Your task to perform on an android device: toggle sleep mode Image 0: 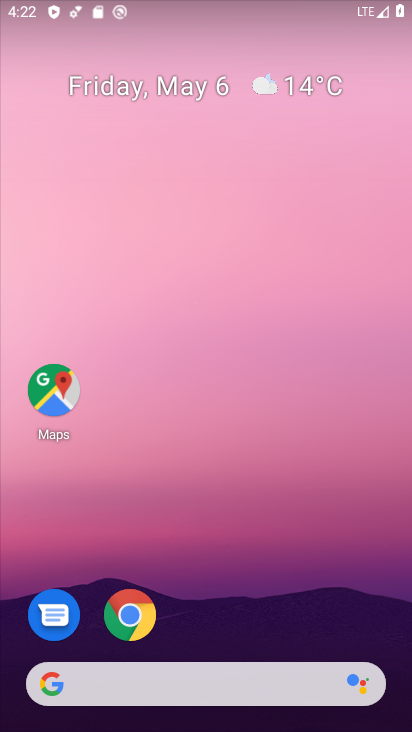
Step 0: drag from (328, 617) to (315, 235)
Your task to perform on an android device: toggle sleep mode Image 1: 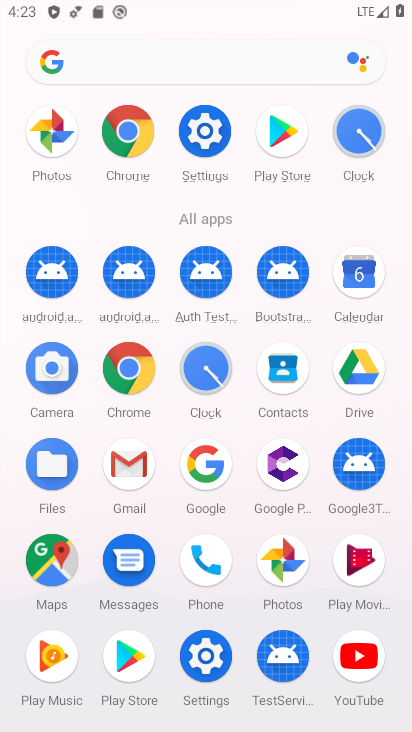
Step 1: click (202, 139)
Your task to perform on an android device: toggle sleep mode Image 2: 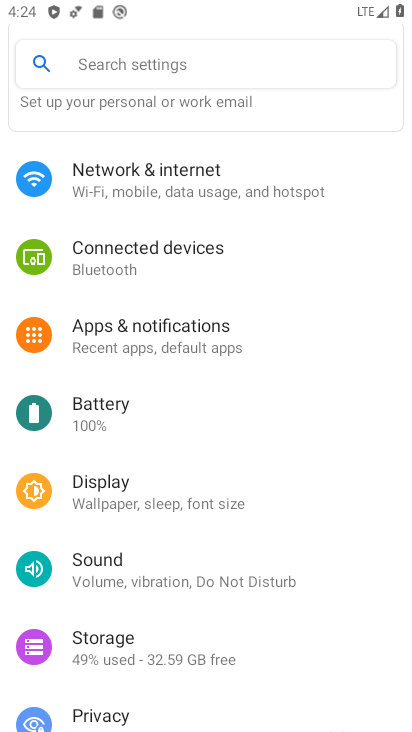
Step 2: click (233, 518)
Your task to perform on an android device: toggle sleep mode Image 3: 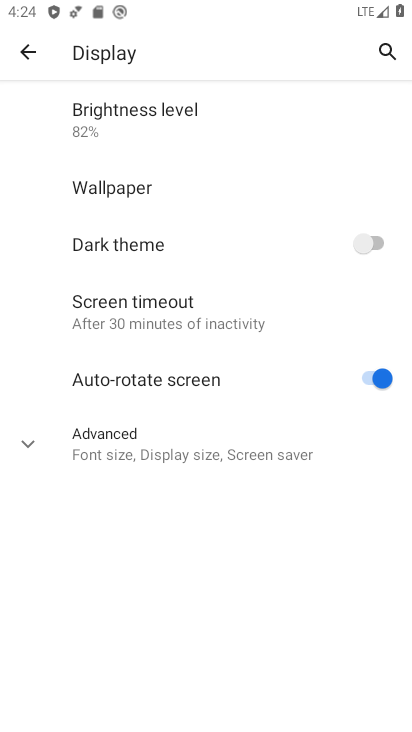
Step 3: click (204, 331)
Your task to perform on an android device: toggle sleep mode Image 4: 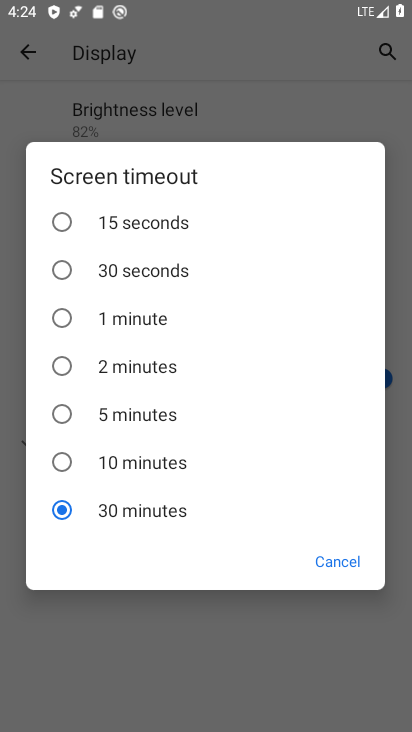
Step 4: click (202, 249)
Your task to perform on an android device: toggle sleep mode Image 5: 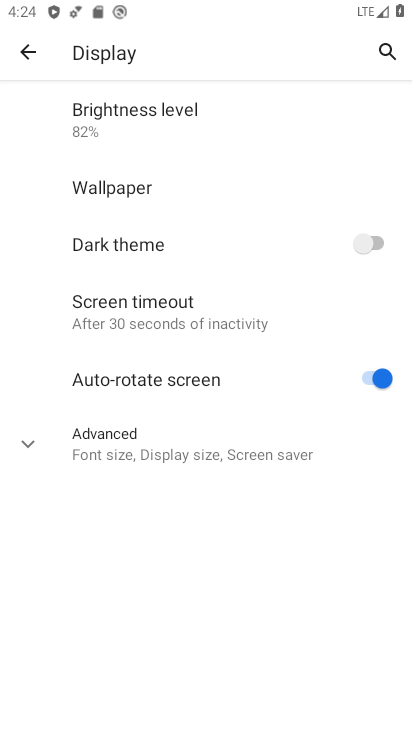
Step 5: task complete